Your task to perform on an android device: toggle location history Image 0: 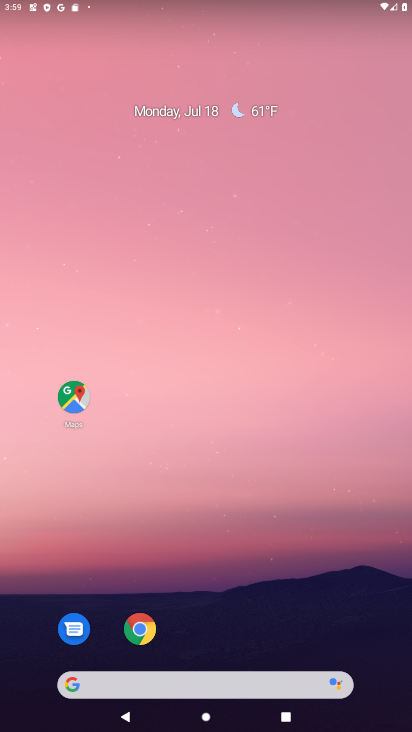
Step 0: drag from (232, 669) to (305, 267)
Your task to perform on an android device: toggle location history Image 1: 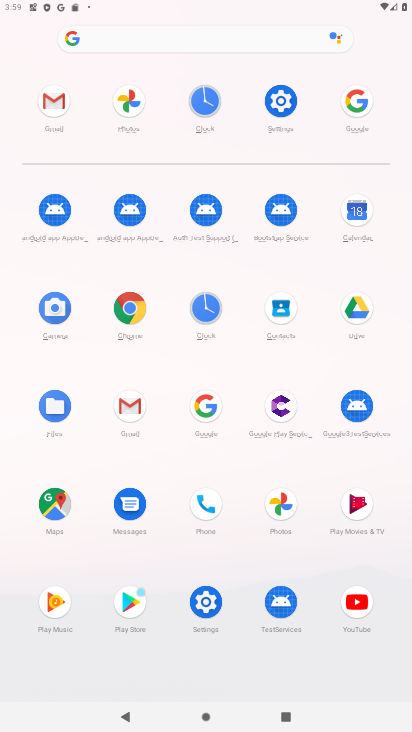
Step 1: click (279, 102)
Your task to perform on an android device: toggle location history Image 2: 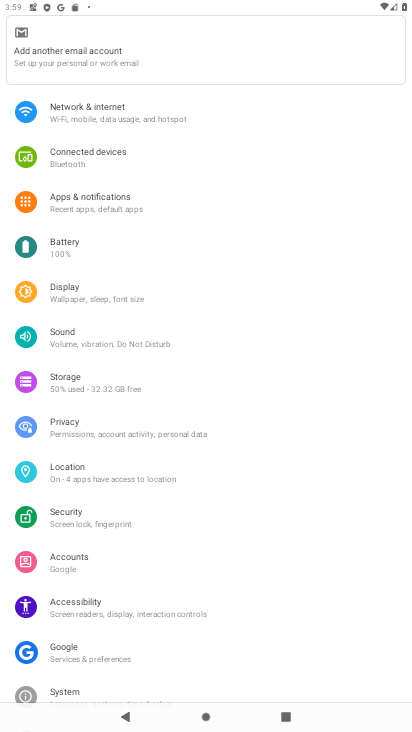
Step 2: click (114, 472)
Your task to perform on an android device: toggle location history Image 3: 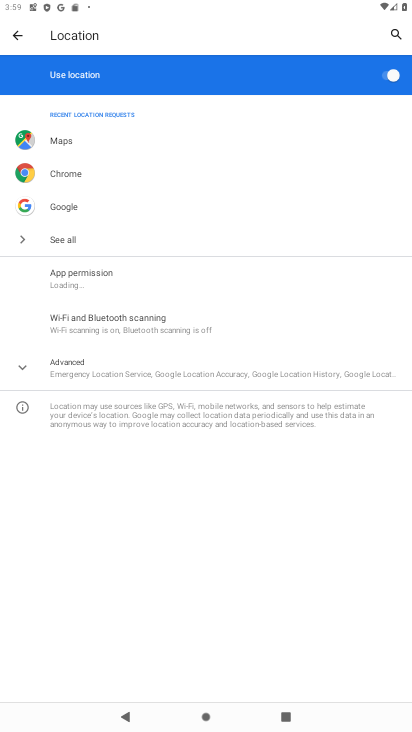
Step 3: click (101, 367)
Your task to perform on an android device: toggle location history Image 4: 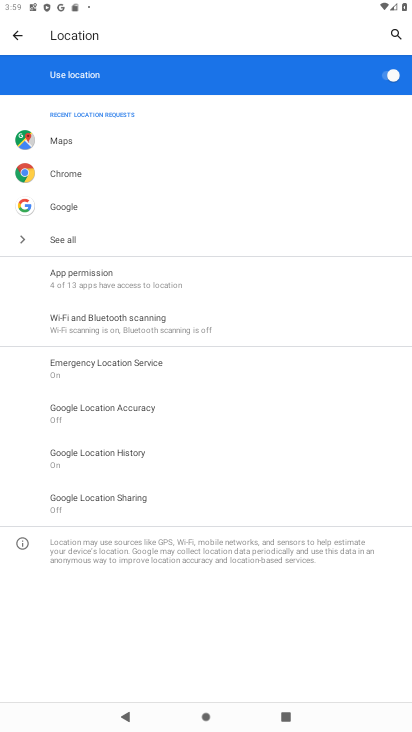
Step 4: click (126, 451)
Your task to perform on an android device: toggle location history Image 5: 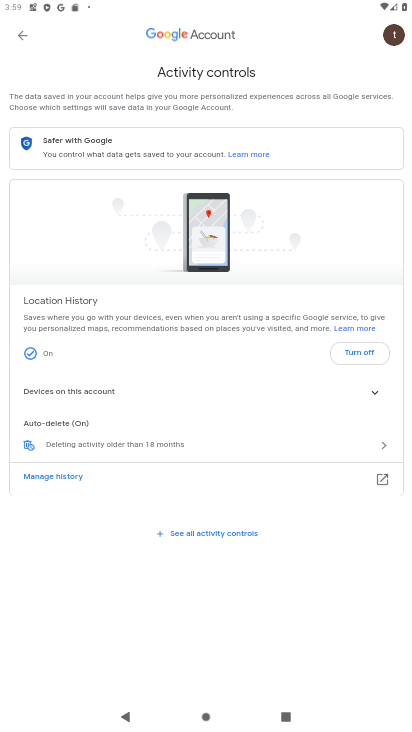
Step 5: click (359, 349)
Your task to perform on an android device: toggle location history Image 6: 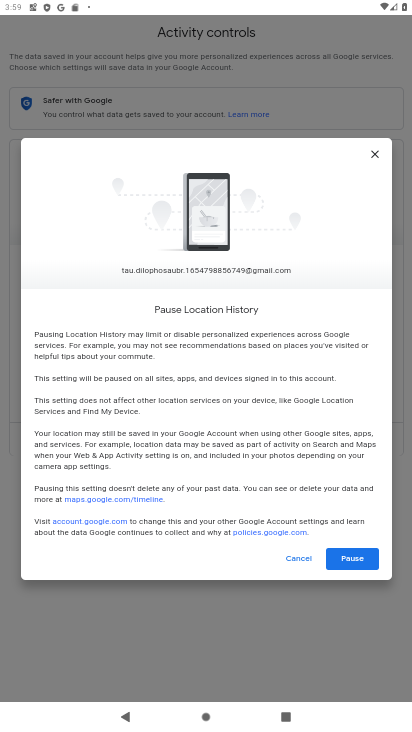
Step 6: click (352, 559)
Your task to perform on an android device: toggle location history Image 7: 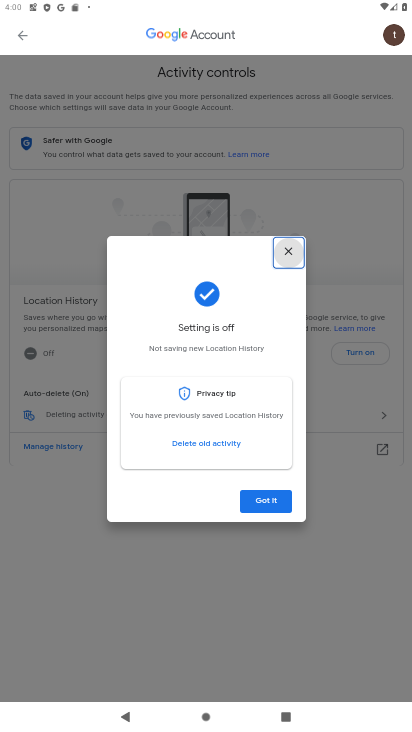
Step 7: click (253, 499)
Your task to perform on an android device: toggle location history Image 8: 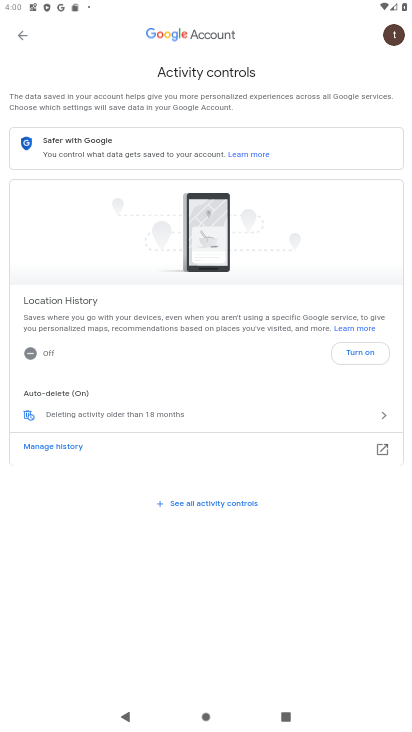
Step 8: task complete